Your task to perform on an android device: delete the emails in spam in the gmail app Image 0: 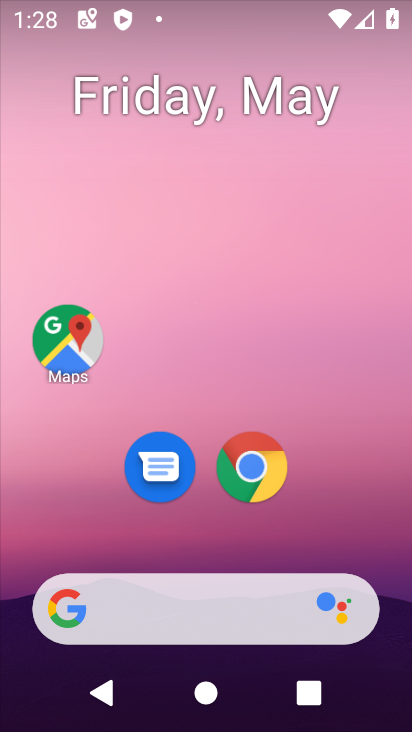
Step 0: drag from (357, 468) to (308, 61)
Your task to perform on an android device: delete the emails in spam in the gmail app Image 1: 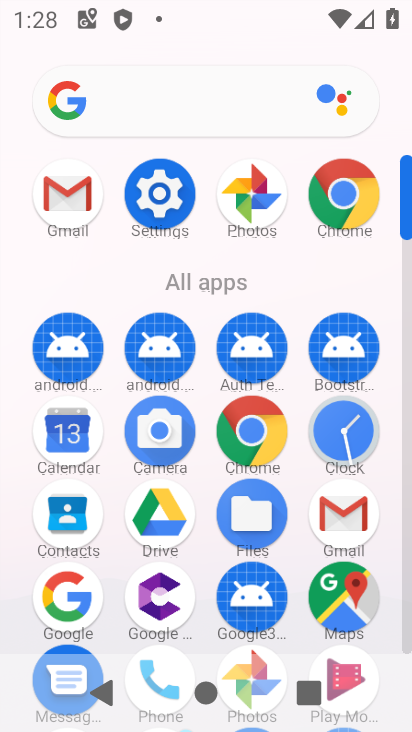
Step 1: click (353, 512)
Your task to perform on an android device: delete the emails in spam in the gmail app Image 2: 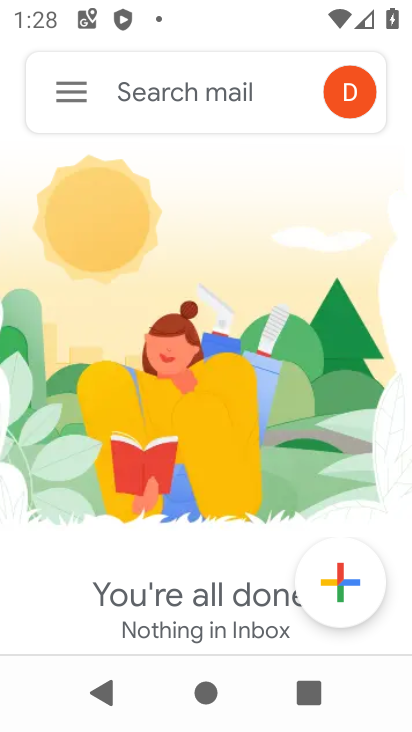
Step 2: click (72, 92)
Your task to perform on an android device: delete the emails in spam in the gmail app Image 3: 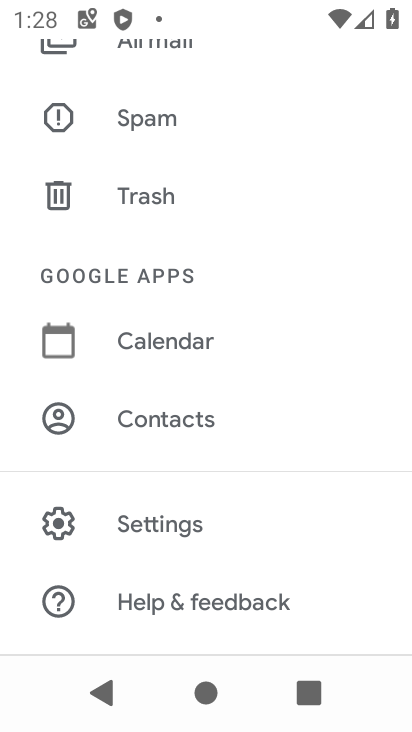
Step 3: click (134, 117)
Your task to perform on an android device: delete the emails in spam in the gmail app Image 4: 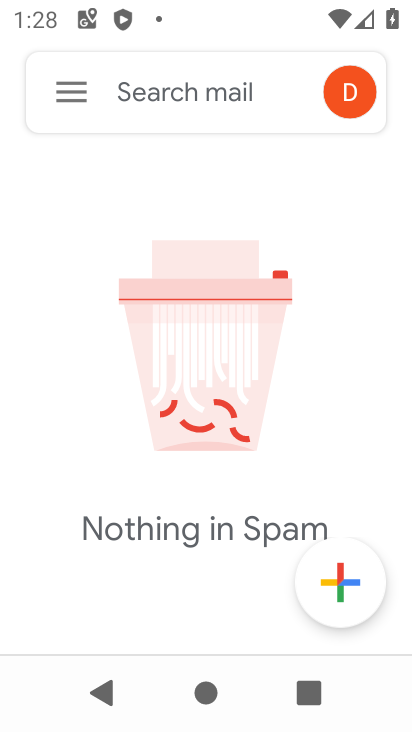
Step 4: task complete